Your task to perform on an android device: turn on priority inbox in the gmail app Image 0: 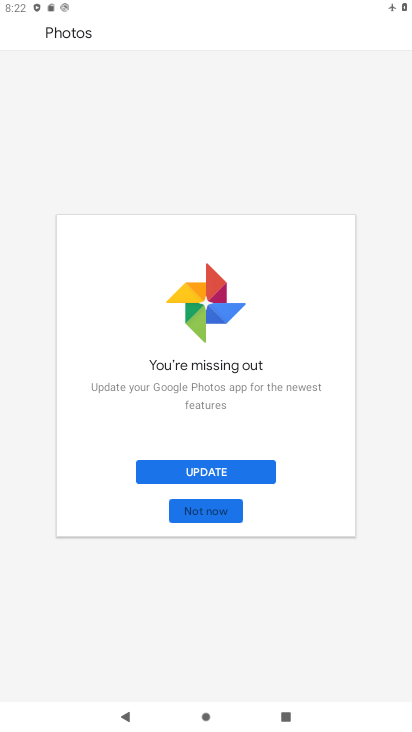
Step 0: press home button
Your task to perform on an android device: turn on priority inbox in the gmail app Image 1: 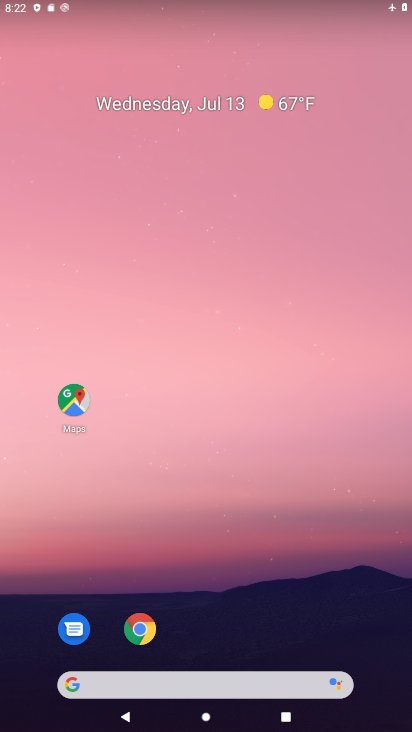
Step 1: drag from (192, 652) to (193, 58)
Your task to perform on an android device: turn on priority inbox in the gmail app Image 2: 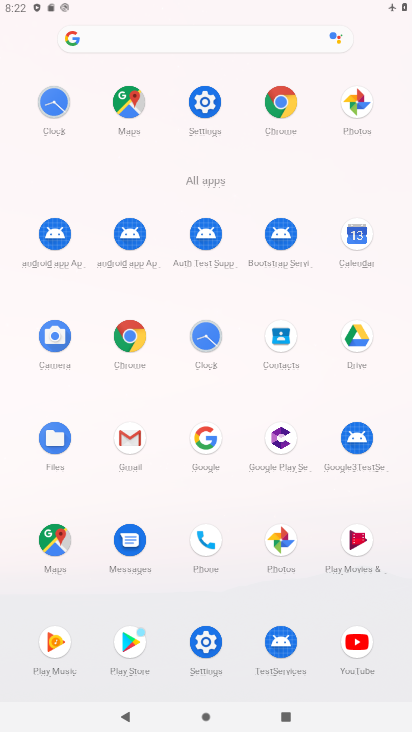
Step 2: click (132, 439)
Your task to perform on an android device: turn on priority inbox in the gmail app Image 3: 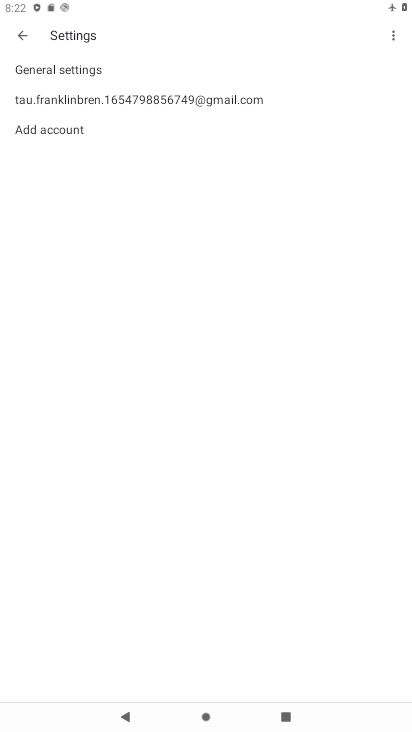
Step 3: click (59, 105)
Your task to perform on an android device: turn on priority inbox in the gmail app Image 4: 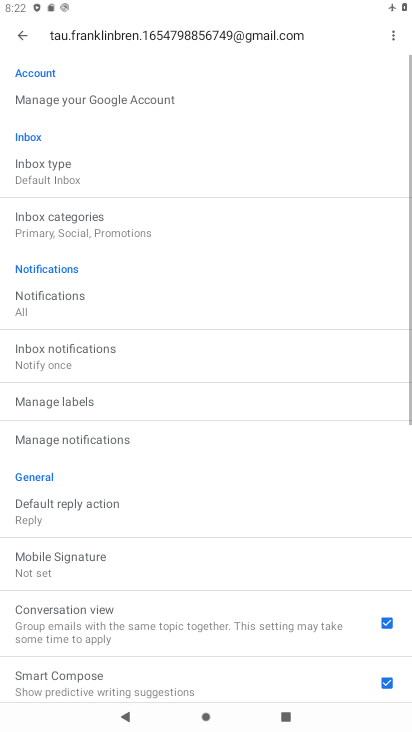
Step 4: click (88, 172)
Your task to perform on an android device: turn on priority inbox in the gmail app Image 5: 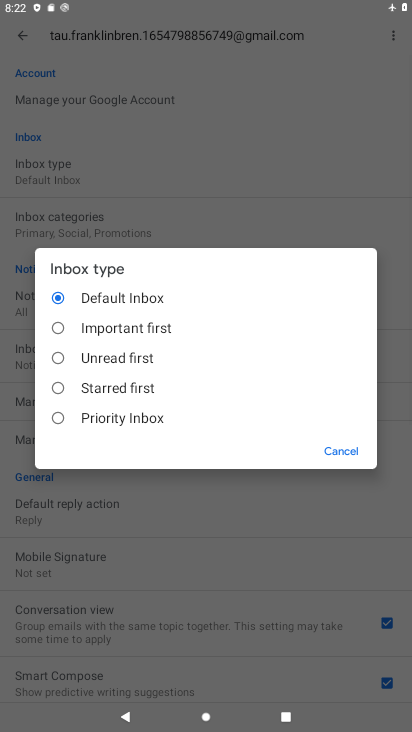
Step 5: click (112, 416)
Your task to perform on an android device: turn on priority inbox in the gmail app Image 6: 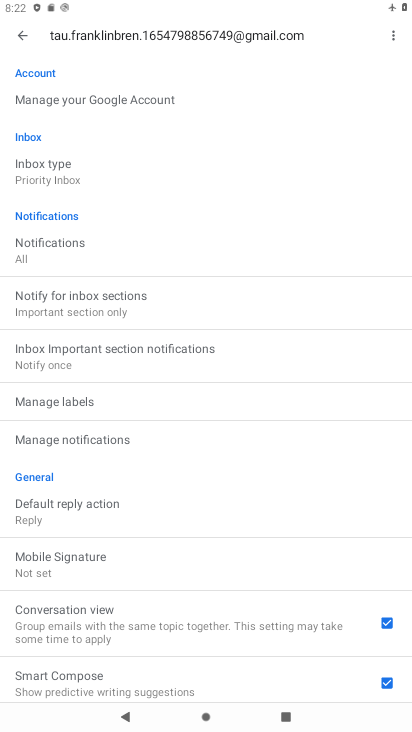
Step 6: task complete